Your task to perform on an android device: Go to privacy settings Image 0: 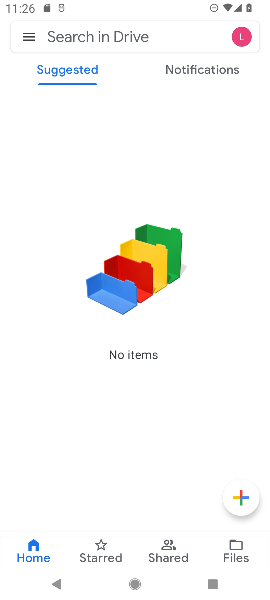
Step 0: press back button
Your task to perform on an android device: Go to privacy settings Image 1: 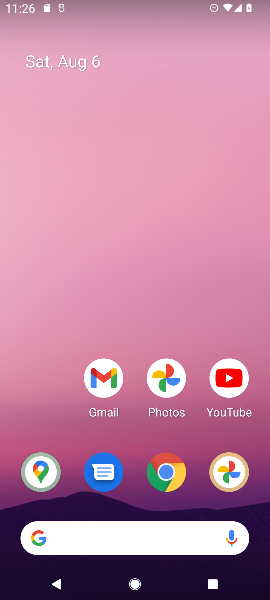
Step 1: drag from (150, 571) to (80, 191)
Your task to perform on an android device: Go to privacy settings Image 2: 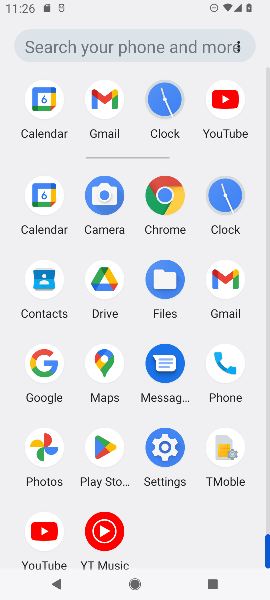
Step 2: click (162, 445)
Your task to perform on an android device: Go to privacy settings Image 3: 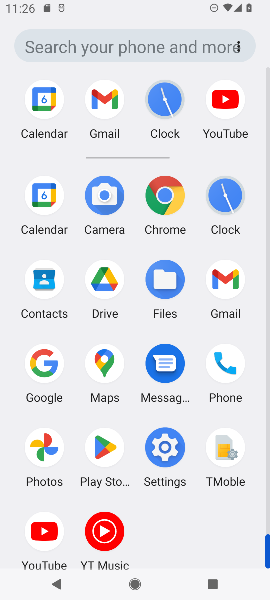
Step 3: click (162, 445)
Your task to perform on an android device: Go to privacy settings Image 4: 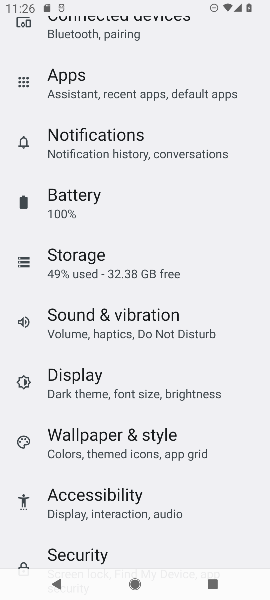
Step 4: click (163, 445)
Your task to perform on an android device: Go to privacy settings Image 5: 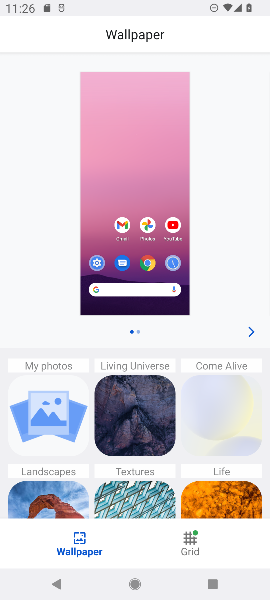
Step 5: press back button
Your task to perform on an android device: Go to privacy settings Image 6: 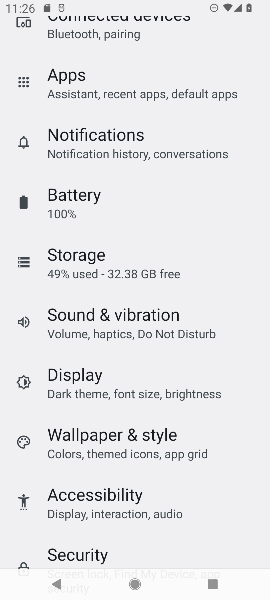
Step 6: drag from (65, 73) to (144, 489)
Your task to perform on an android device: Go to privacy settings Image 7: 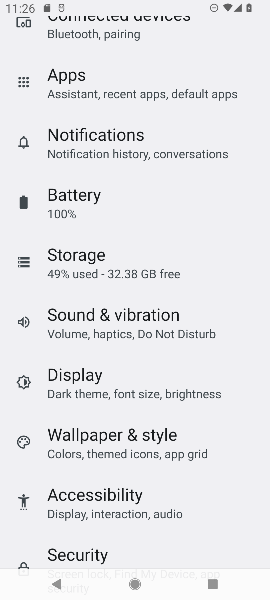
Step 7: drag from (106, 177) to (125, 482)
Your task to perform on an android device: Go to privacy settings Image 8: 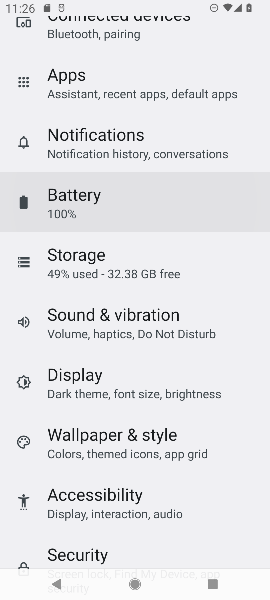
Step 8: drag from (148, 215) to (186, 515)
Your task to perform on an android device: Go to privacy settings Image 9: 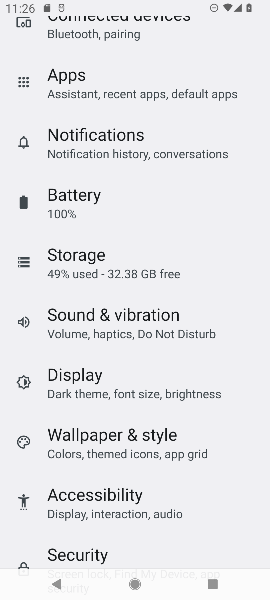
Step 9: drag from (71, 96) to (98, 366)
Your task to perform on an android device: Go to privacy settings Image 10: 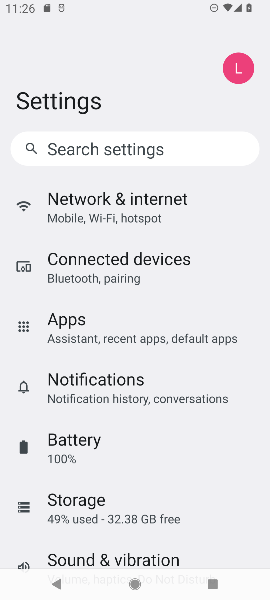
Step 10: drag from (89, 117) to (94, 328)
Your task to perform on an android device: Go to privacy settings Image 11: 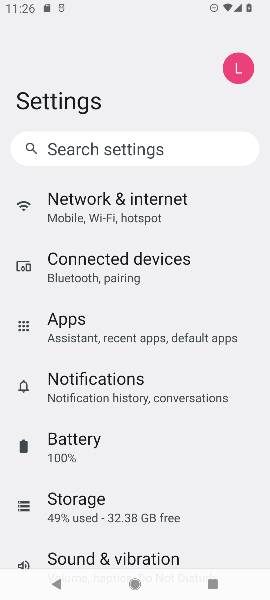
Step 11: drag from (91, 129) to (137, 473)
Your task to perform on an android device: Go to privacy settings Image 12: 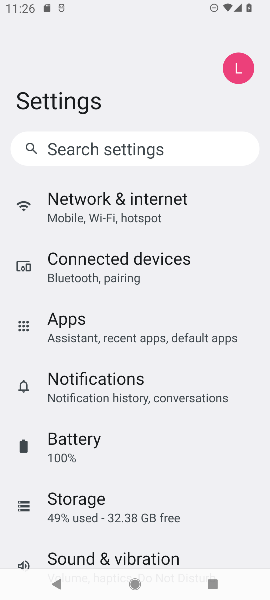
Step 12: drag from (106, 521) to (115, 155)
Your task to perform on an android device: Go to privacy settings Image 13: 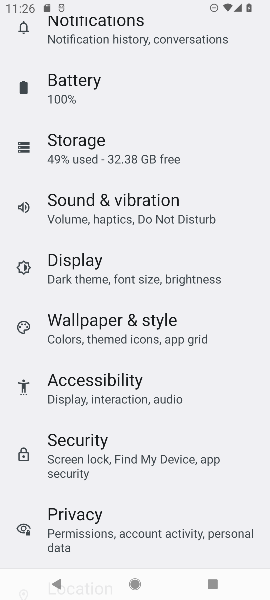
Step 13: drag from (126, 432) to (143, 186)
Your task to perform on an android device: Go to privacy settings Image 14: 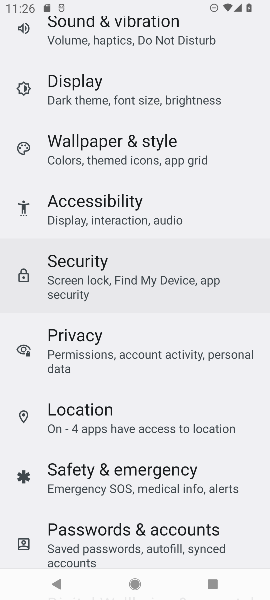
Step 14: drag from (143, 477) to (167, 264)
Your task to perform on an android device: Go to privacy settings Image 15: 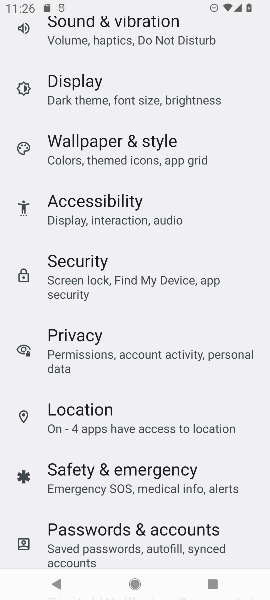
Step 15: click (79, 348)
Your task to perform on an android device: Go to privacy settings Image 16: 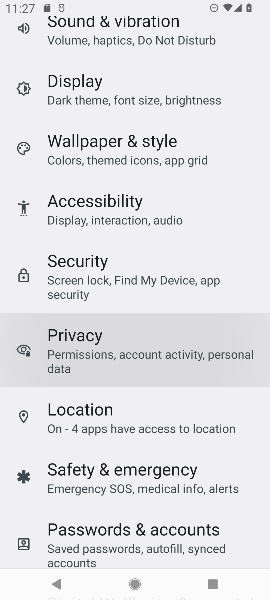
Step 16: click (79, 348)
Your task to perform on an android device: Go to privacy settings Image 17: 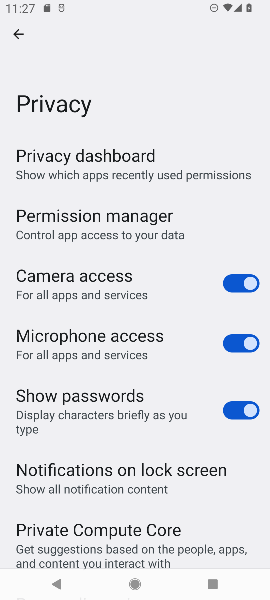
Step 17: task complete